Your task to perform on an android device: change notification settings in the gmail app Image 0: 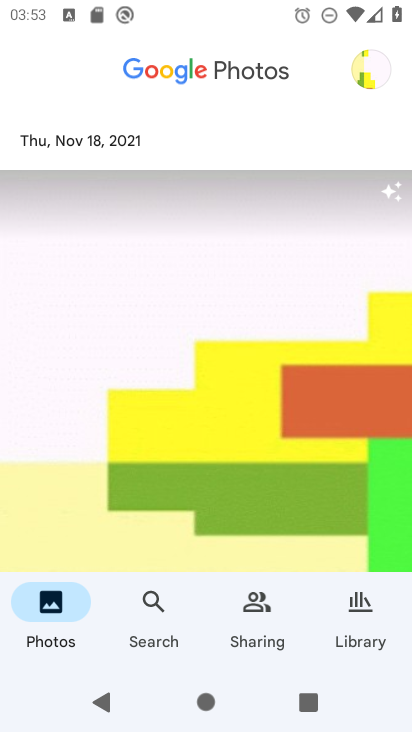
Step 0: press home button
Your task to perform on an android device: change notification settings in the gmail app Image 1: 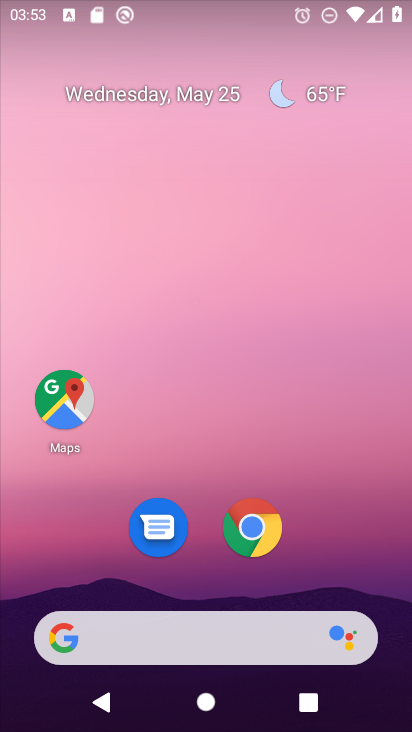
Step 1: drag from (312, 626) to (321, 26)
Your task to perform on an android device: change notification settings in the gmail app Image 2: 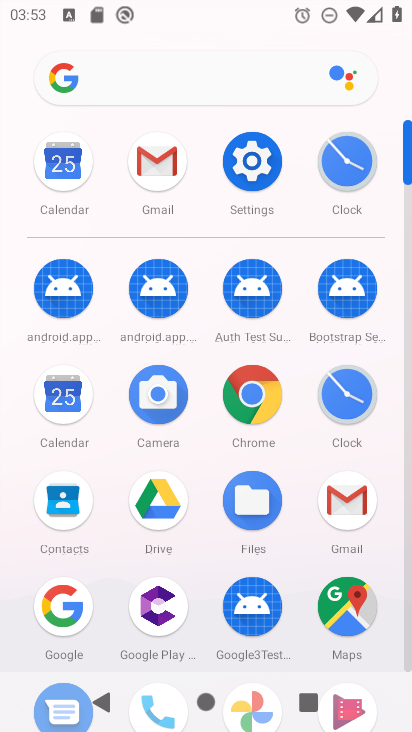
Step 2: click (362, 509)
Your task to perform on an android device: change notification settings in the gmail app Image 3: 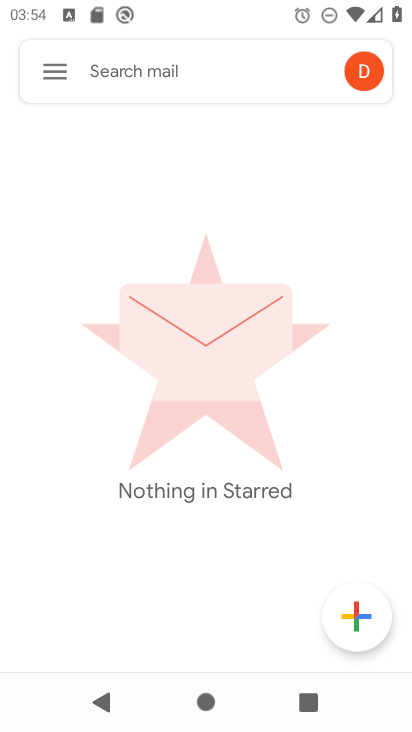
Step 3: click (54, 70)
Your task to perform on an android device: change notification settings in the gmail app Image 4: 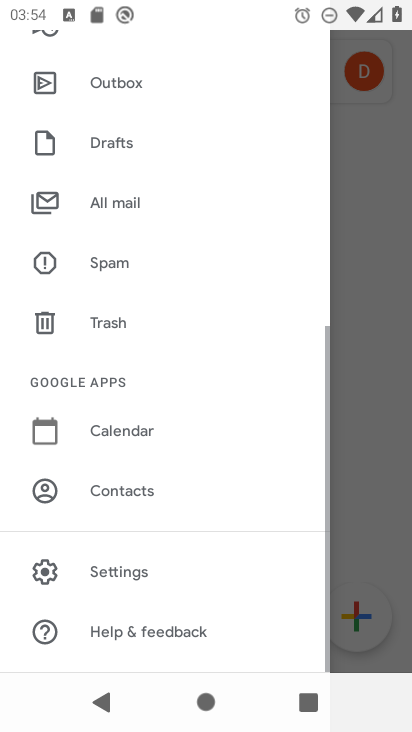
Step 4: drag from (176, 592) to (214, 144)
Your task to perform on an android device: change notification settings in the gmail app Image 5: 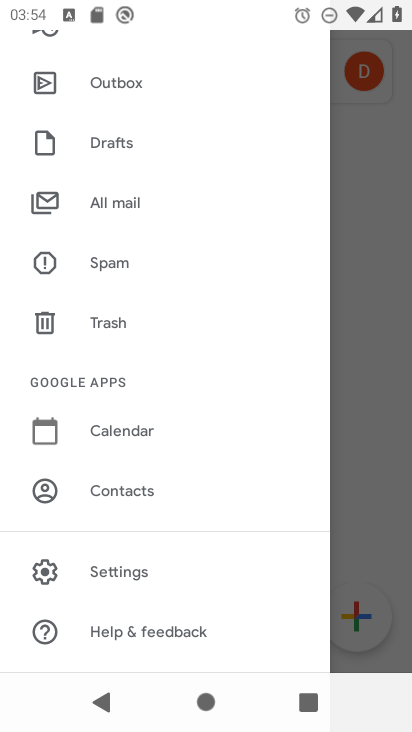
Step 5: click (115, 568)
Your task to perform on an android device: change notification settings in the gmail app Image 6: 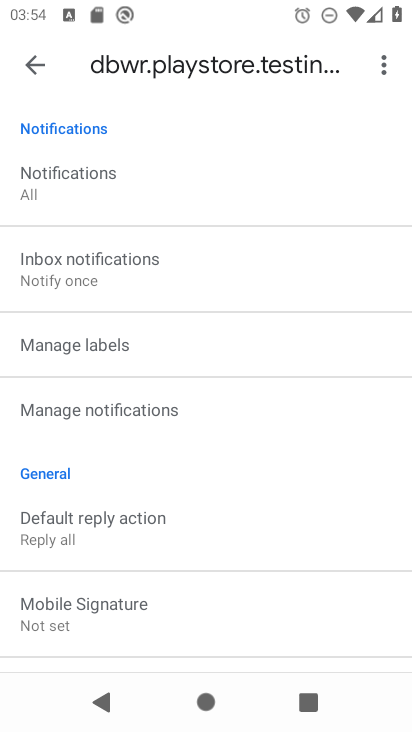
Step 6: click (154, 417)
Your task to perform on an android device: change notification settings in the gmail app Image 7: 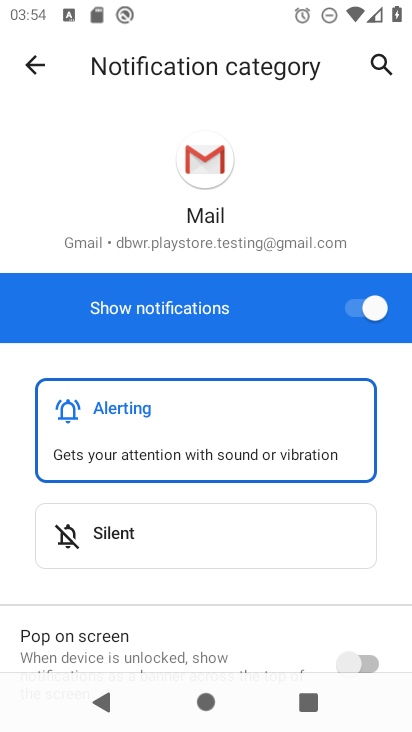
Step 7: click (355, 307)
Your task to perform on an android device: change notification settings in the gmail app Image 8: 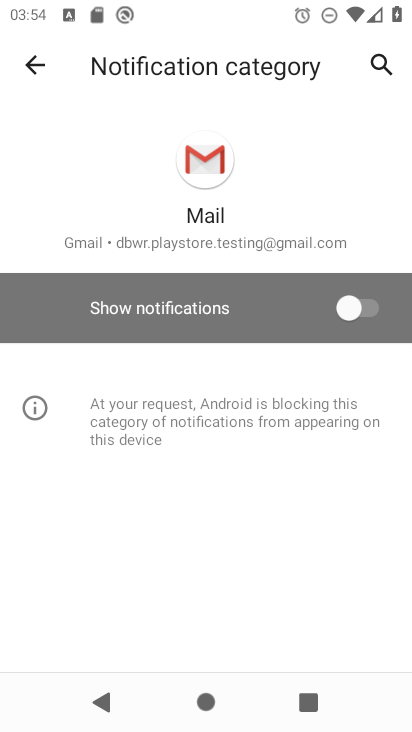
Step 8: task complete